Your task to perform on an android device: Search for 'The Girl on the Train' on Goodreads. Image 0: 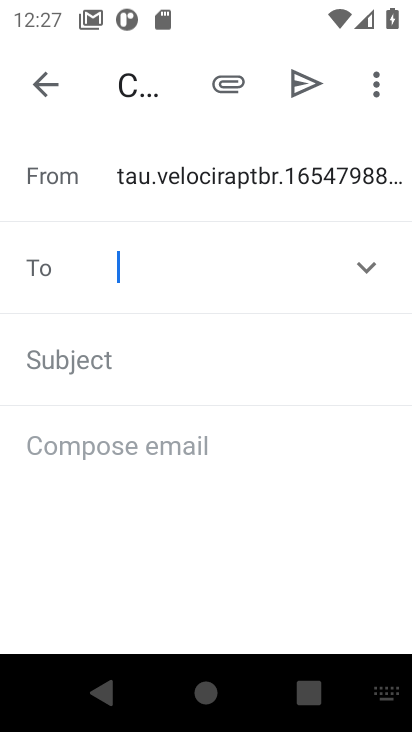
Step 0: press home button
Your task to perform on an android device: Search for 'The Girl on the Train' on Goodreads. Image 1: 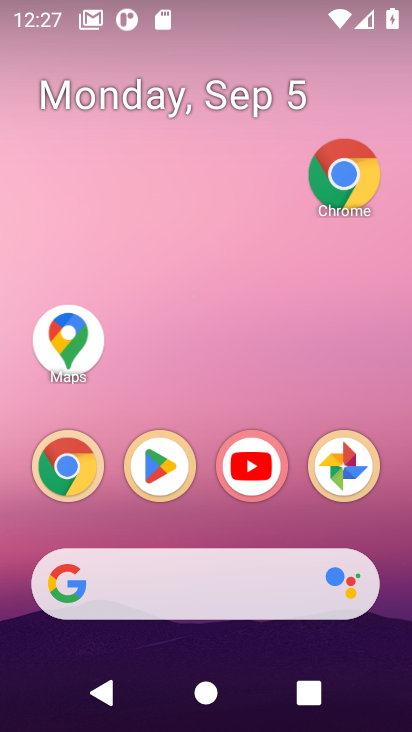
Step 1: drag from (219, 524) to (248, 87)
Your task to perform on an android device: Search for 'The Girl on the Train' on Goodreads. Image 2: 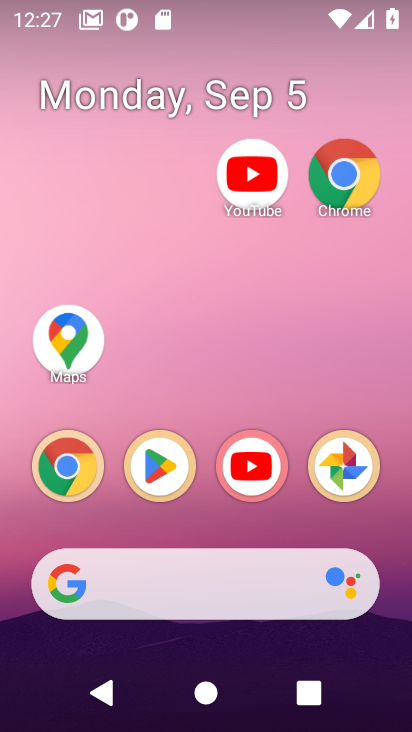
Step 2: drag from (203, 513) to (156, 78)
Your task to perform on an android device: Search for 'The Girl on the Train' on Goodreads. Image 3: 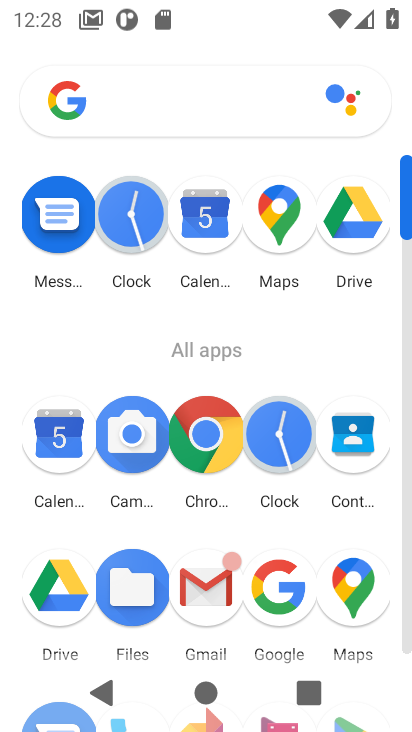
Step 3: click (211, 434)
Your task to perform on an android device: Search for 'The Girl on the Train' on Goodreads. Image 4: 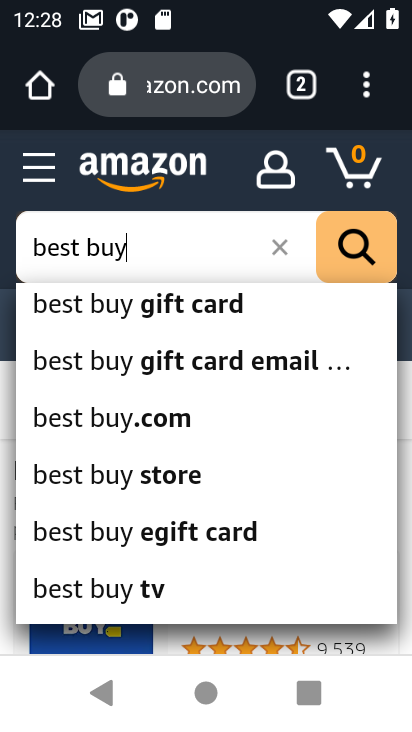
Step 4: click (185, 88)
Your task to perform on an android device: Search for 'The Girl on the Train' on Goodreads. Image 5: 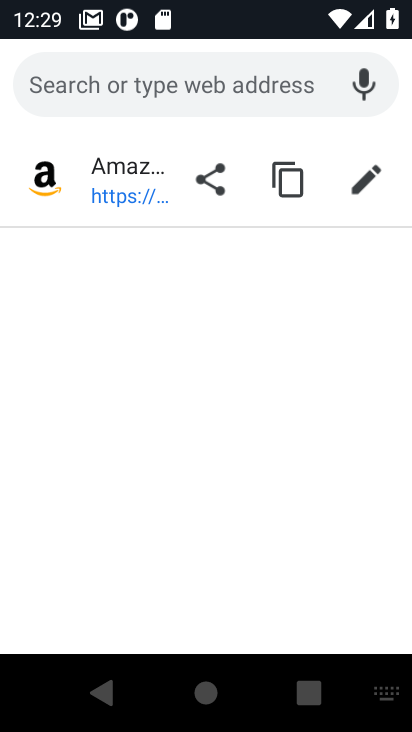
Step 5: type "Goodreads"
Your task to perform on an android device: Search for 'The Girl on the Train' on Goodreads. Image 6: 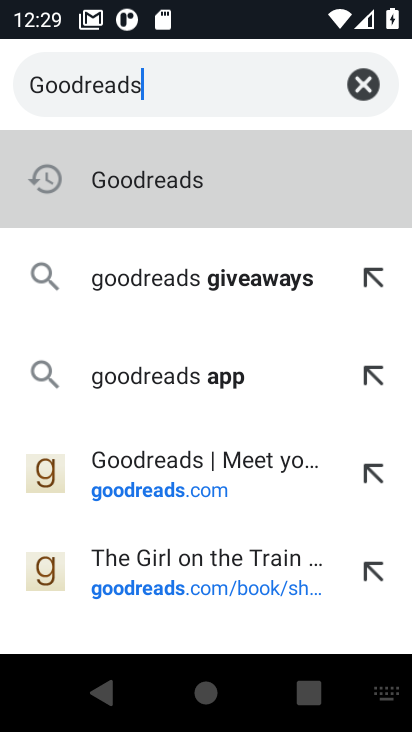
Step 6: click (180, 177)
Your task to perform on an android device: Search for 'The Girl on the Train' on Goodreads. Image 7: 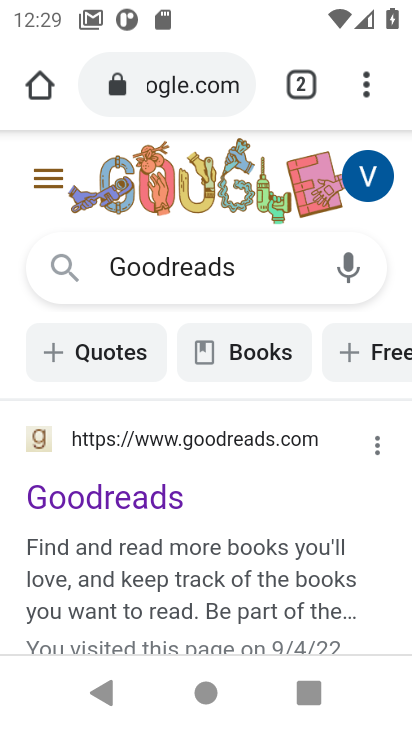
Step 7: click (93, 492)
Your task to perform on an android device: Search for 'The Girl on the Train' on Goodreads. Image 8: 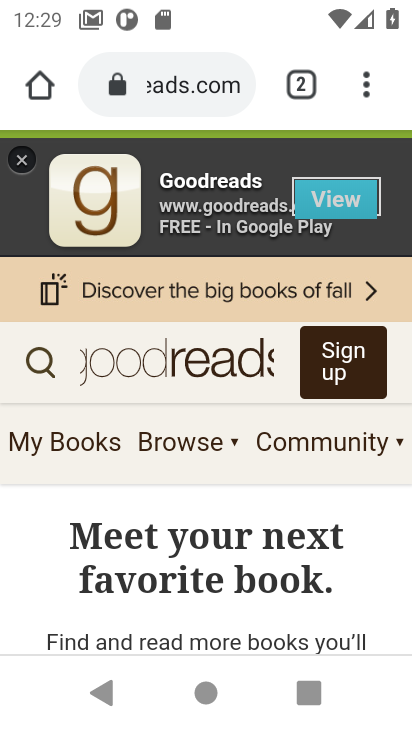
Step 8: drag from (168, 402) to (286, 109)
Your task to perform on an android device: Search for 'The Girl on the Train' on Goodreads. Image 9: 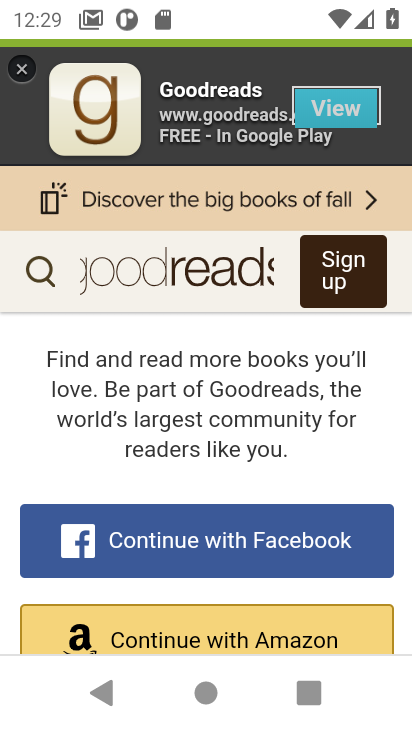
Step 9: click (40, 267)
Your task to perform on an android device: Search for 'The Girl on the Train' on Goodreads. Image 10: 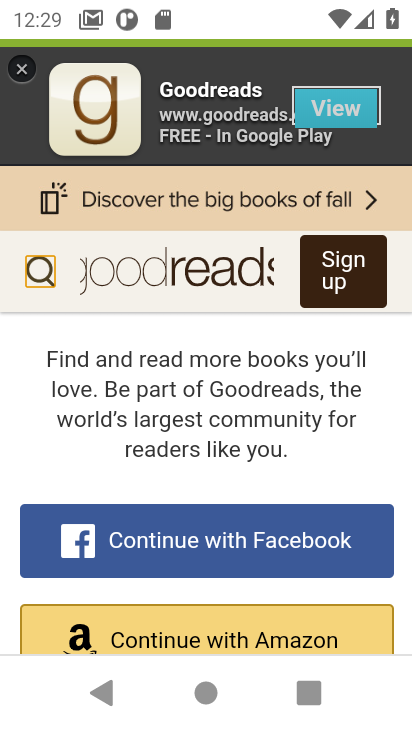
Step 10: click (36, 264)
Your task to perform on an android device: Search for 'The Girl on the Train' on Goodreads. Image 11: 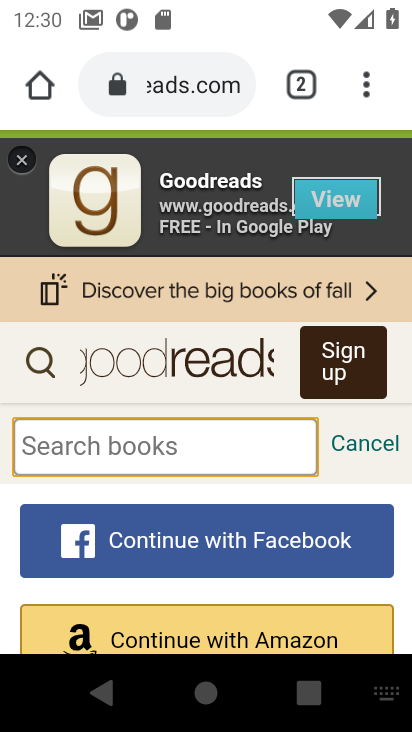
Step 11: type "The Girl on the Train"
Your task to perform on an android device: Search for 'The Girl on the Train' on Goodreads. Image 12: 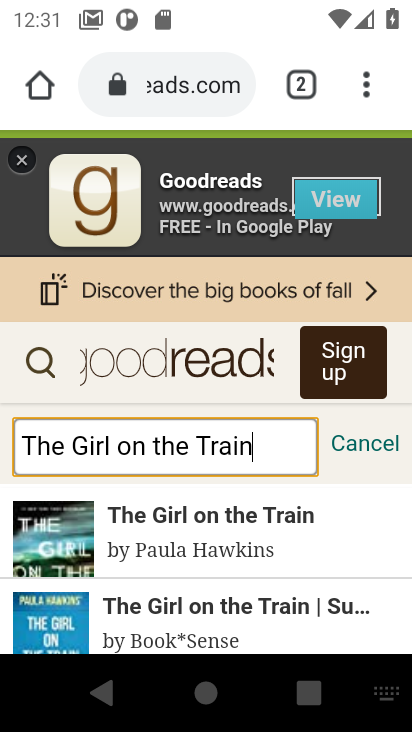
Step 12: click (179, 519)
Your task to perform on an android device: Search for 'The Girl on the Train' on Goodreads. Image 13: 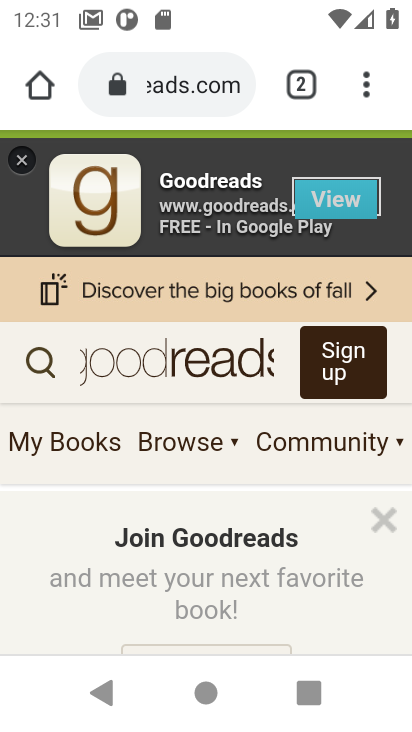
Step 13: task complete